Your task to perform on an android device: Search for "macbook air" on bestbuy.com, select the first entry, add it to the cart, then select checkout. Image 0: 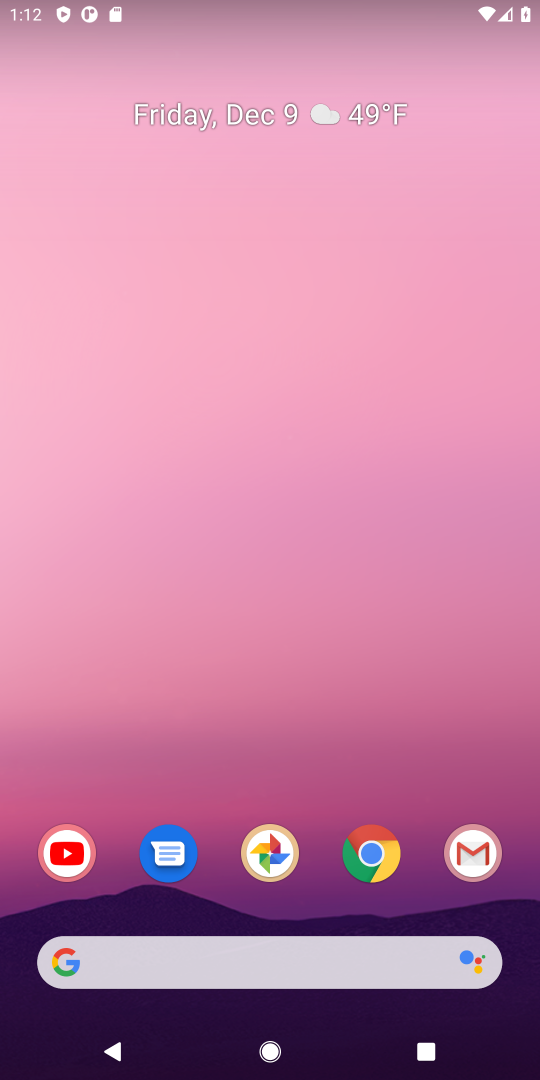
Step 0: click (293, 407)
Your task to perform on an android device: Search for "macbook air" on bestbuy.com, select the first entry, add it to the cart, then select checkout. Image 1: 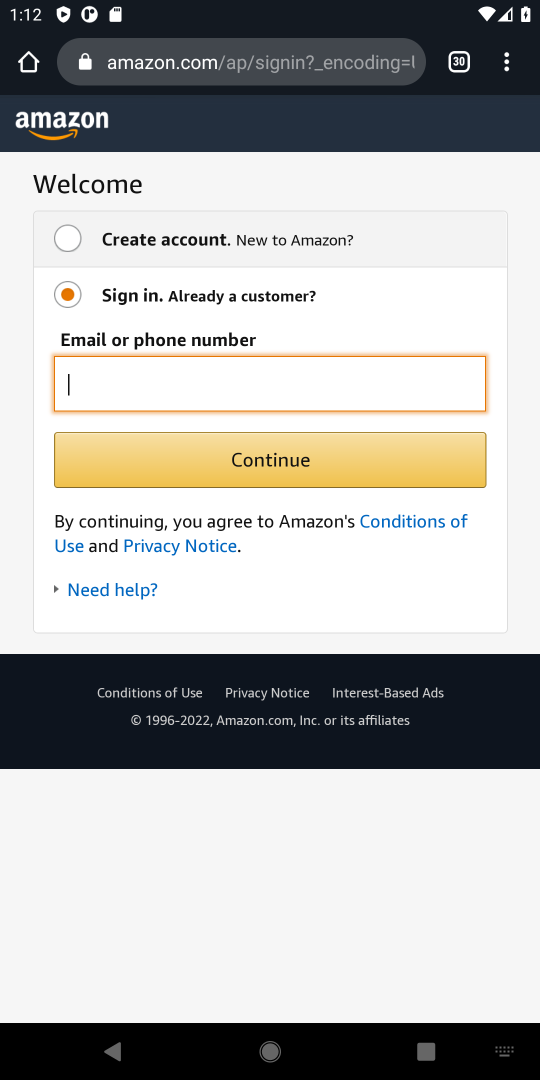
Step 1: press back button
Your task to perform on an android device: Search for "macbook air" on bestbuy.com, select the first entry, add it to the cart, then select checkout. Image 2: 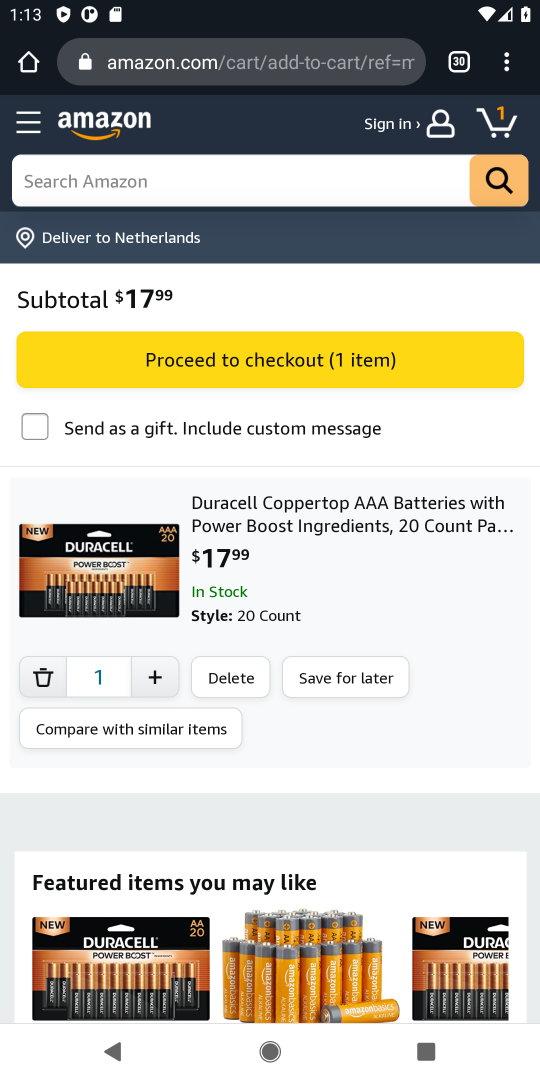
Step 2: press home button
Your task to perform on an android device: Search for "macbook air" on bestbuy.com, select the first entry, add it to the cart, then select checkout. Image 3: 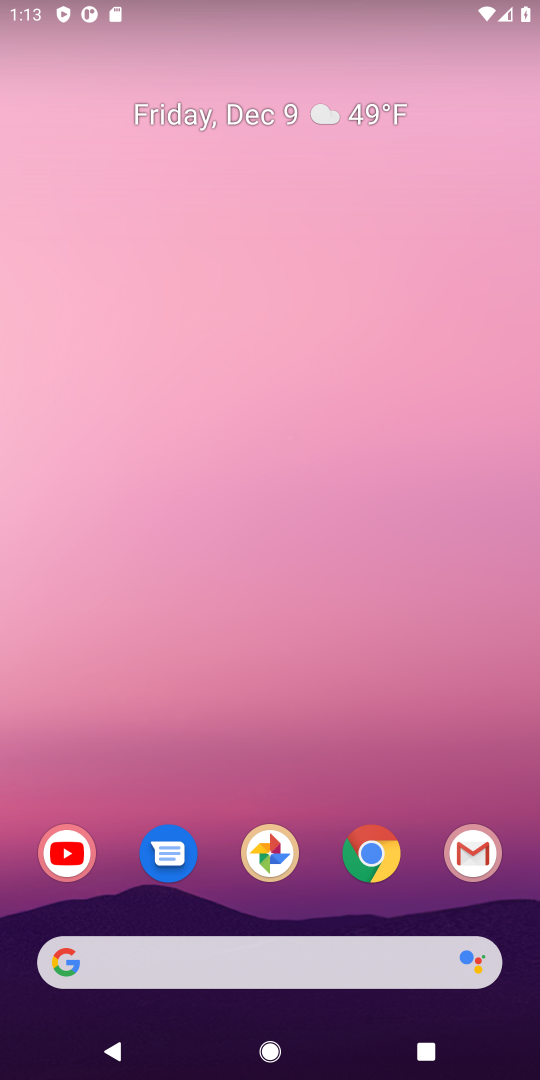
Step 3: drag from (181, 722) to (154, 361)
Your task to perform on an android device: Search for "macbook air" on bestbuy.com, select the first entry, add it to the cart, then select checkout. Image 4: 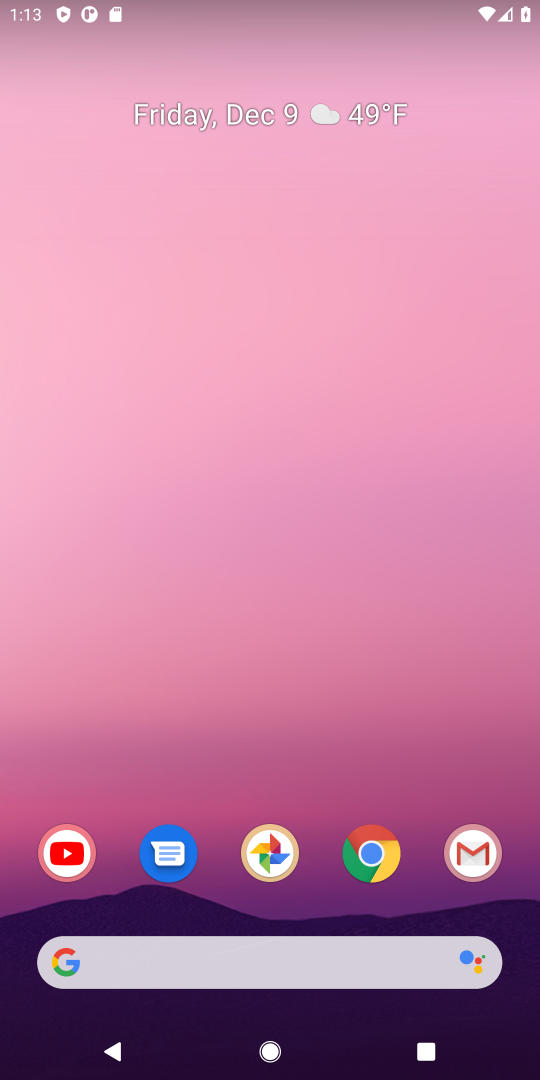
Step 4: drag from (226, 944) to (200, 488)
Your task to perform on an android device: Search for "macbook air" on bestbuy.com, select the first entry, add it to the cart, then select checkout. Image 5: 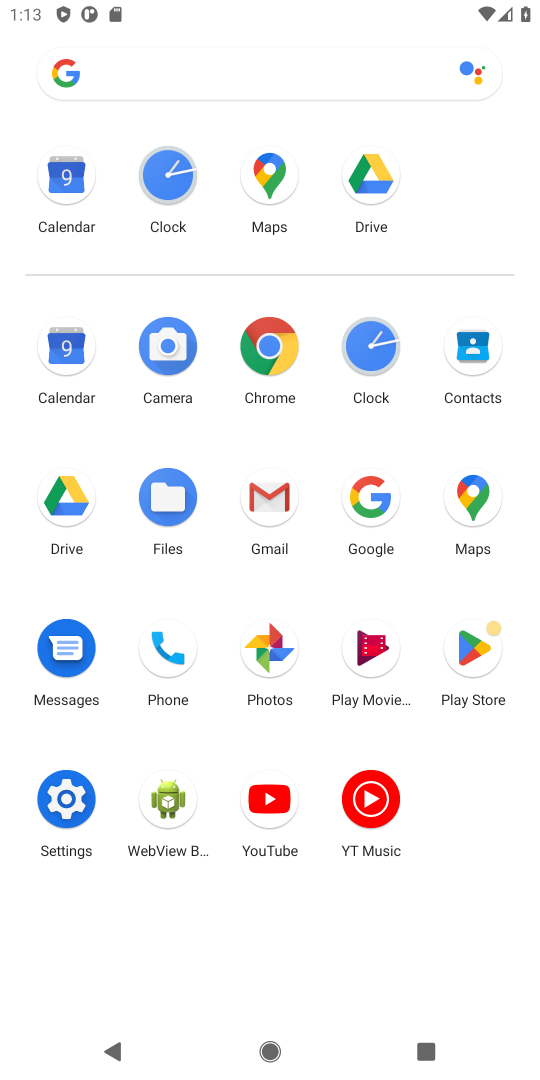
Step 5: click (370, 491)
Your task to perform on an android device: Search for "macbook air" on bestbuy.com, select the first entry, add it to the cart, then select checkout. Image 6: 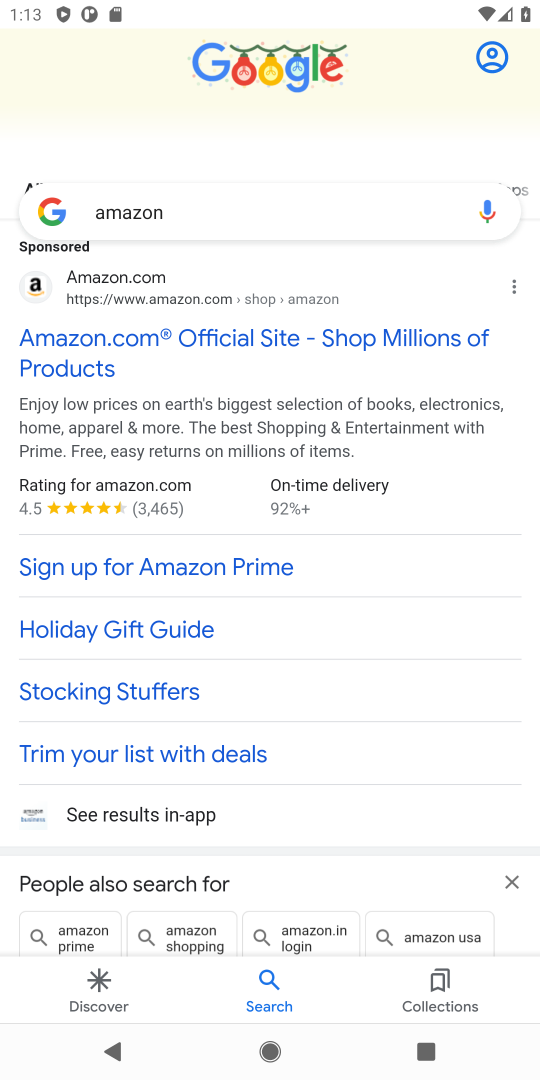
Step 6: click (144, 214)
Your task to perform on an android device: Search for "macbook air" on bestbuy.com, select the first entry, add it to the cart, then select checkout. Image 7: 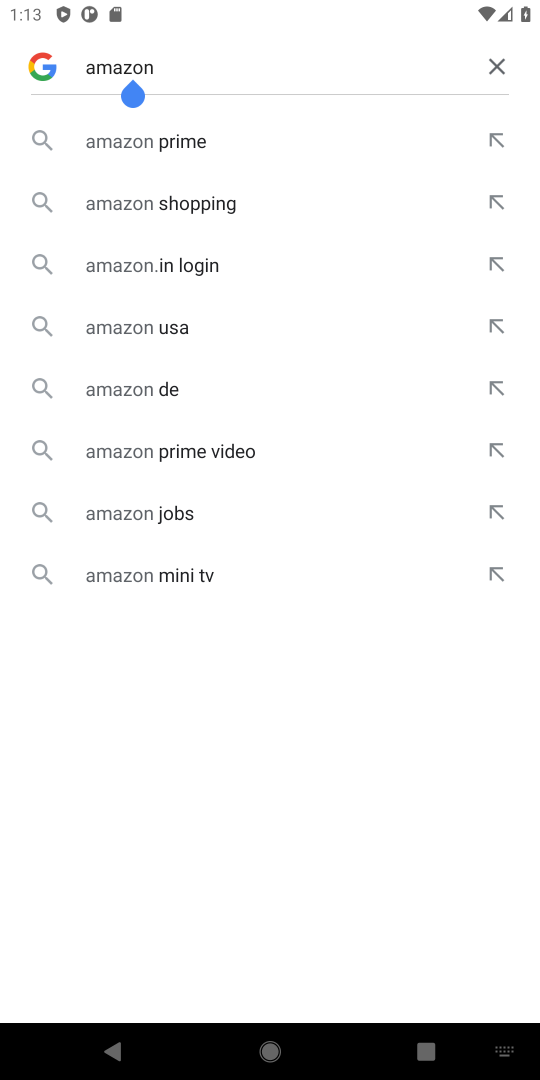
Step 7: click (486, 60)
Your task to perform on an android device: Search for "macbook air" on bestbuy.com, select the first entry, add it to the cart, then select checkout. Image 8: 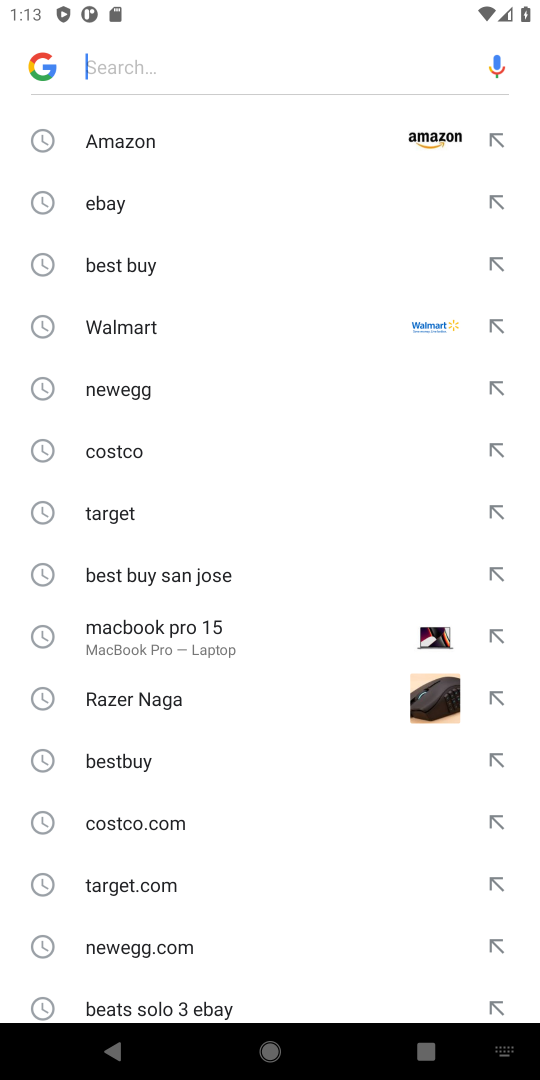
Step 8: click (130, 755)
Your task to perform on an android device: Search for "macbook air" on bestbuy.com, select the first entry, add it to the cart, then select checkout. Image 9: 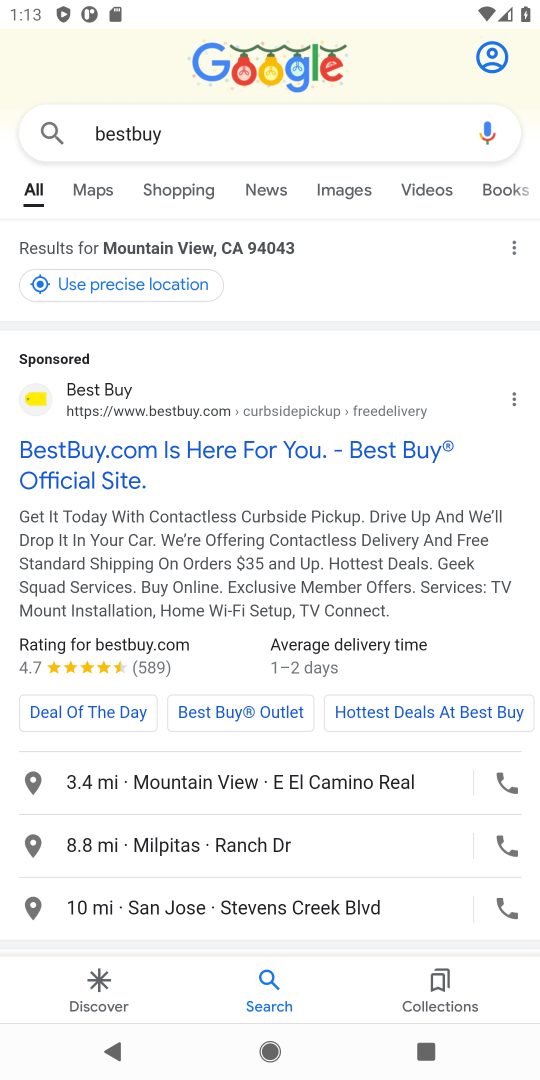
Step 9: click (104, 456)
Your task to perform on an android device: Search for "macbook air" on bestbuy.com, select the first entry, add it to the cart, then select checkout. Image 10: 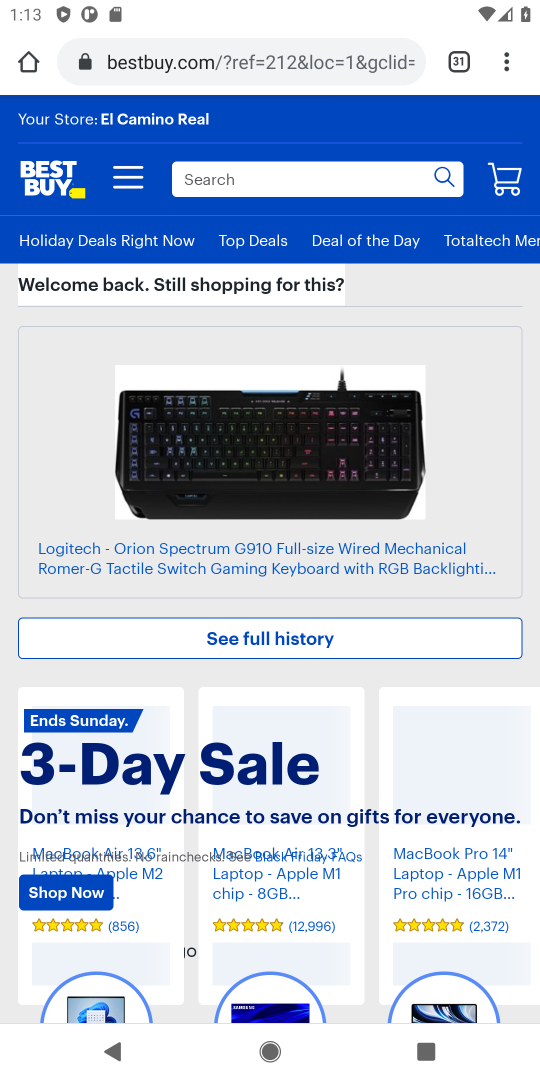
Step 10: click (216, 173)
Your task to perform on an android device: Search for "macbook air" on bestbuy.com, select the first entry, add it to the cart, then select checkout. Image 11: 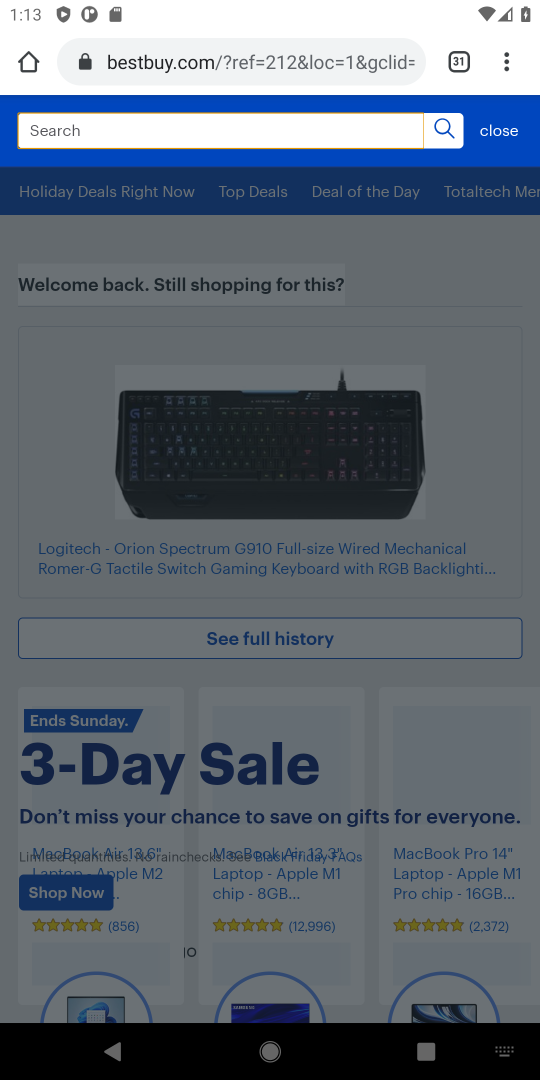
Step 11: type "macbook air"
Your task to perform on an android device: Search for "macbook air" on bestbuy.com, select the first entry, add it to the cart, then select checkout. Image 12: 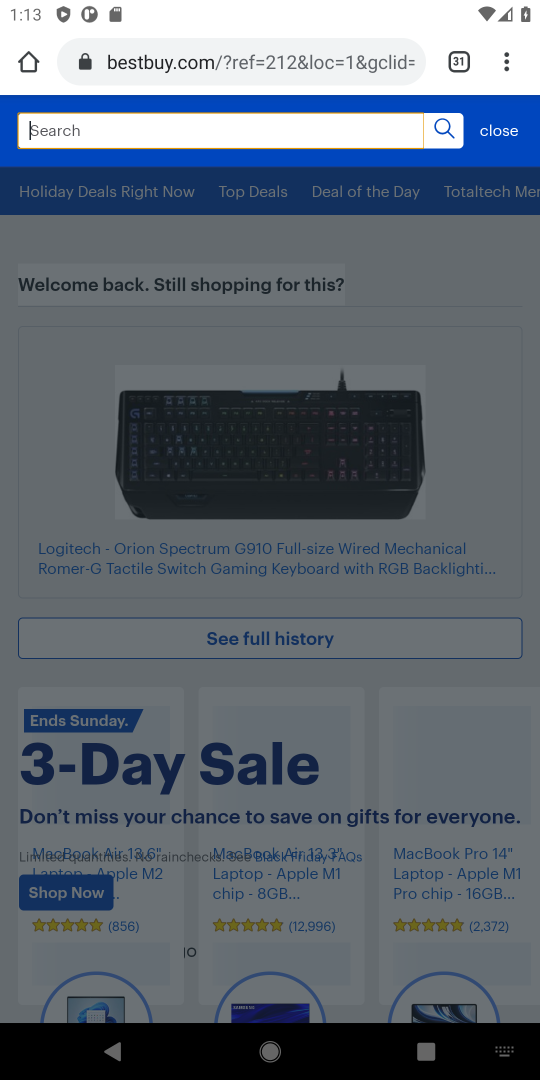
Step 12: click (441, 126)
Your task to perform on an android device: Search for "macbook air" on bestbuy.com, select the first entry, add it to the cart, then select checkout. Image 13: 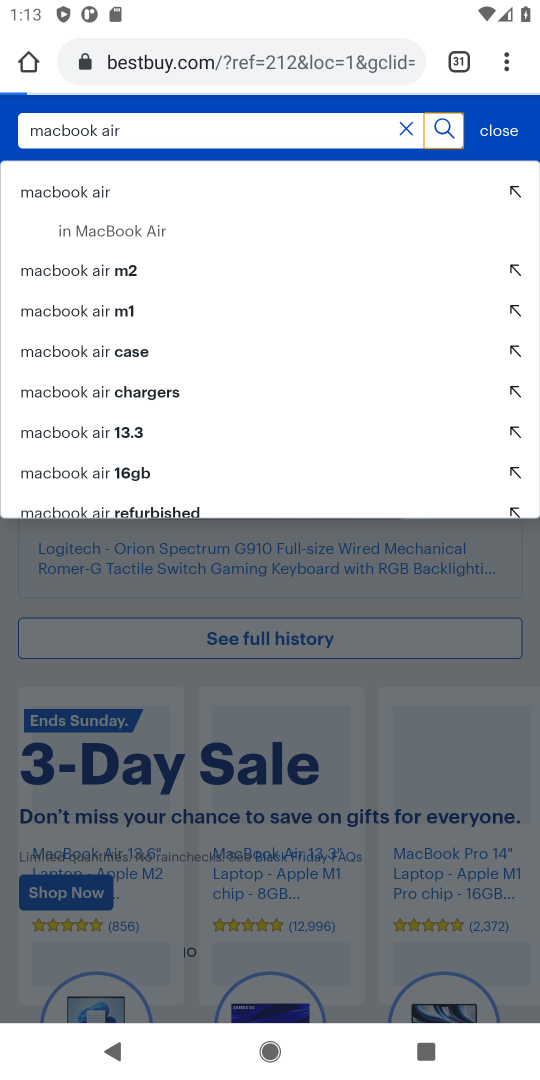
Step 13: click (63, 182)
Your task to perform on an android device: Search for "macbook air" on bestbuy.com, select the first entry, add it to the cart, then select checkout. Image 14: 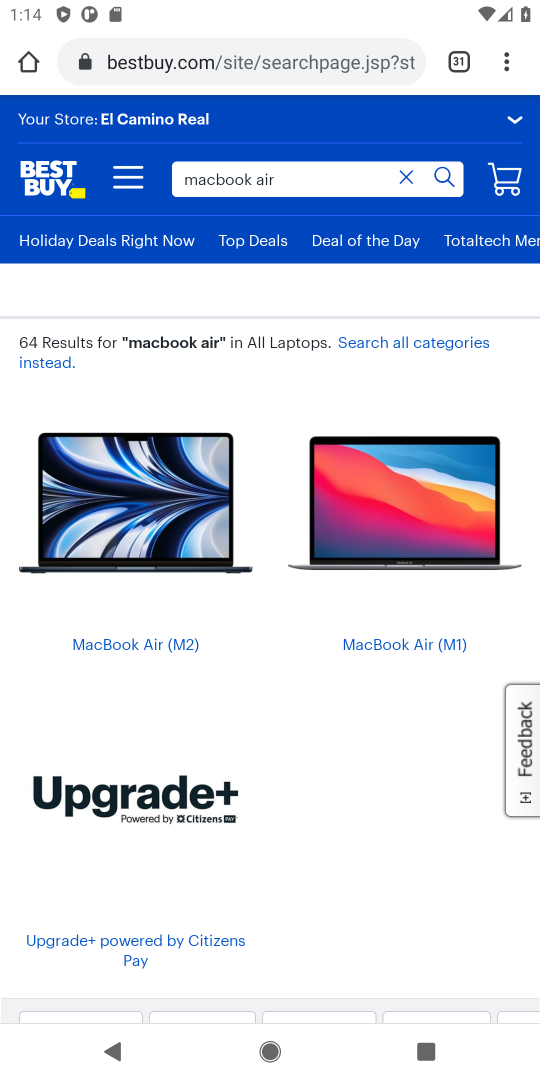
Step 14: click (142, 514)
Your task to perform on an android device: Search for "macbook air" on bestbuy.com, select the first entry, add it to the cart, then select checkout. Image 15: 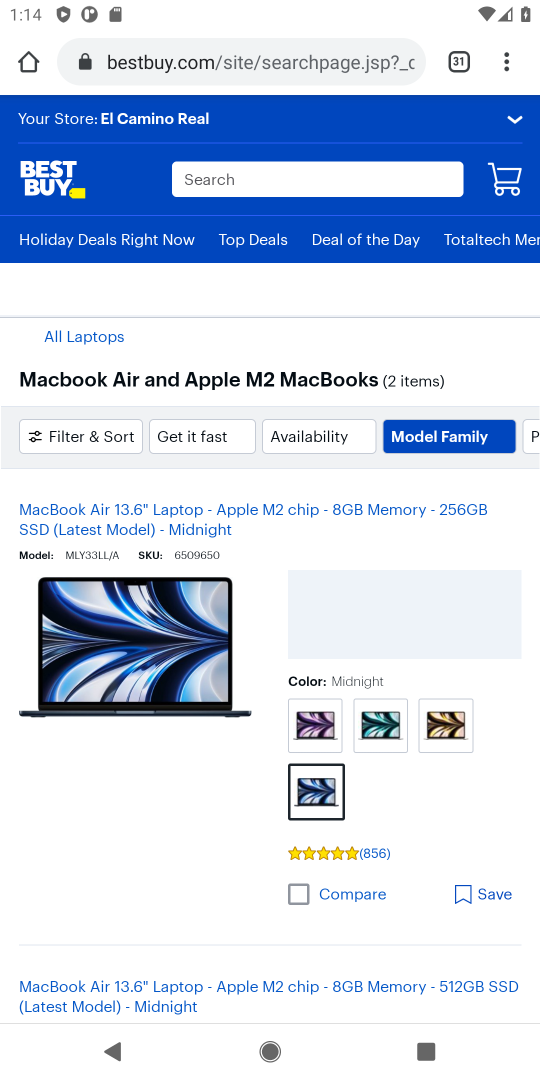
Step 15: drag from (232, 846) to (216, 425)
Your task to perform on an android device: Search for "macbook air" on bestbuy.com, select the first entry, add it to the cart, then select checkout. Image 16: 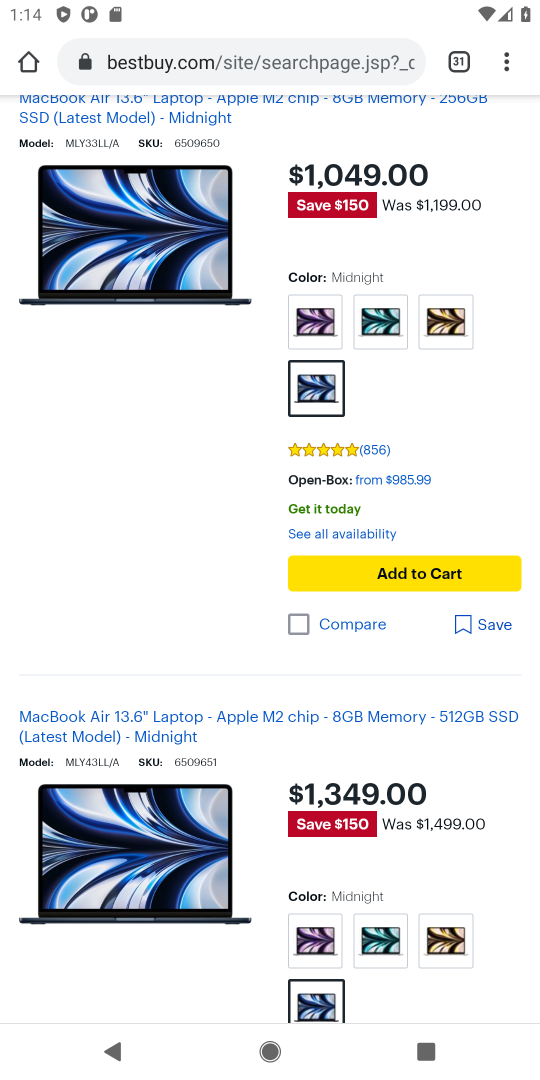
Step 16: click (406, 537)
Your task to perform on an android device: Search for "macbook air" on bestbuy.com, select the first entry, add it to the cart, then select checkout. Image 17: 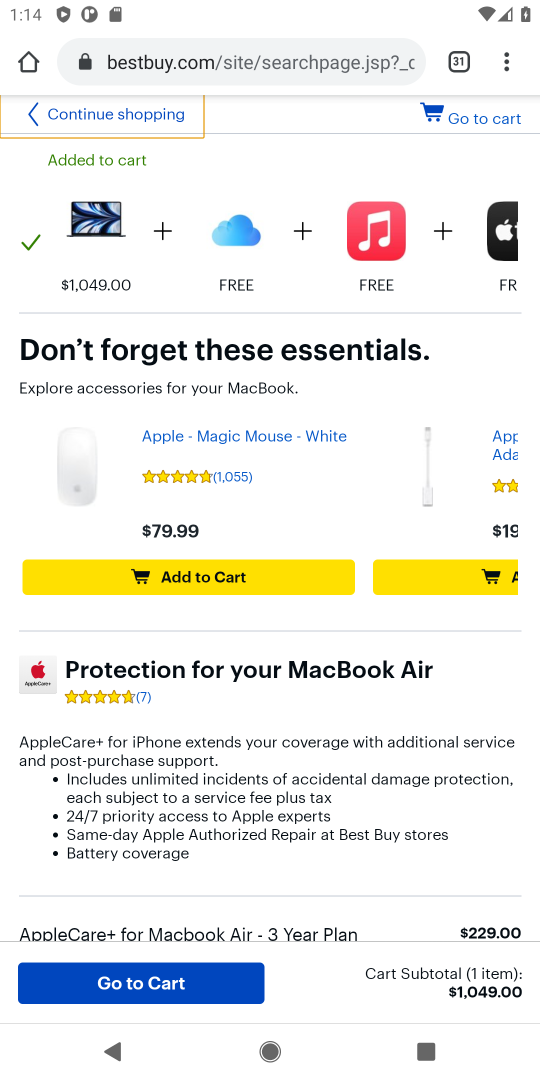
Step 17: click (146, 987)
Your task to perform on an android device: Search for "macbook air" on bestbuy.com, select the first entry, add it to the cart, then select checkout. Image 18: 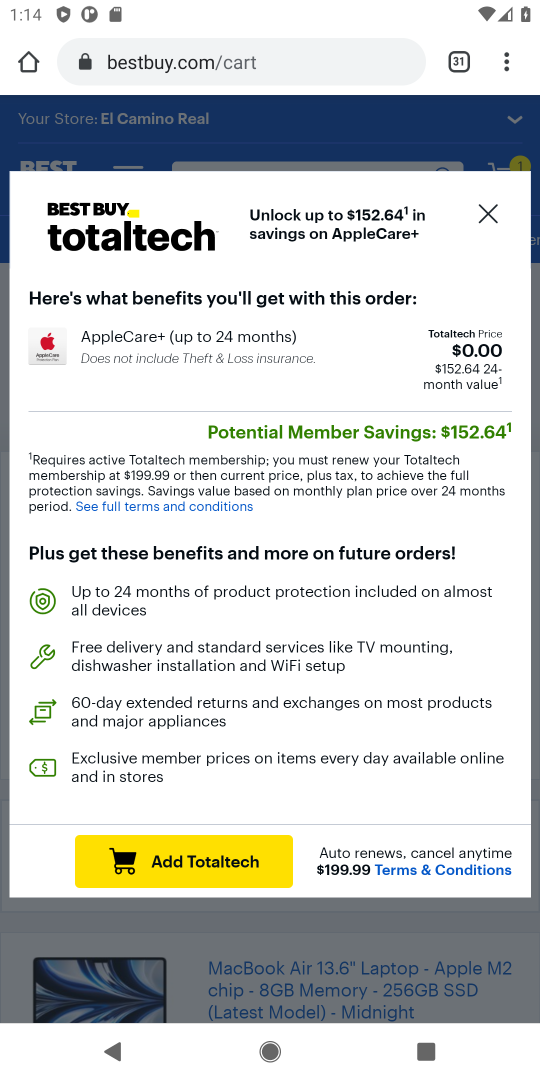
Step 18: click (308, 734)
Your task to perform on an android device: Search for "macbook air" on bestbuy.com, select the first entry, add it to the cart, then select checkout. Image 19: 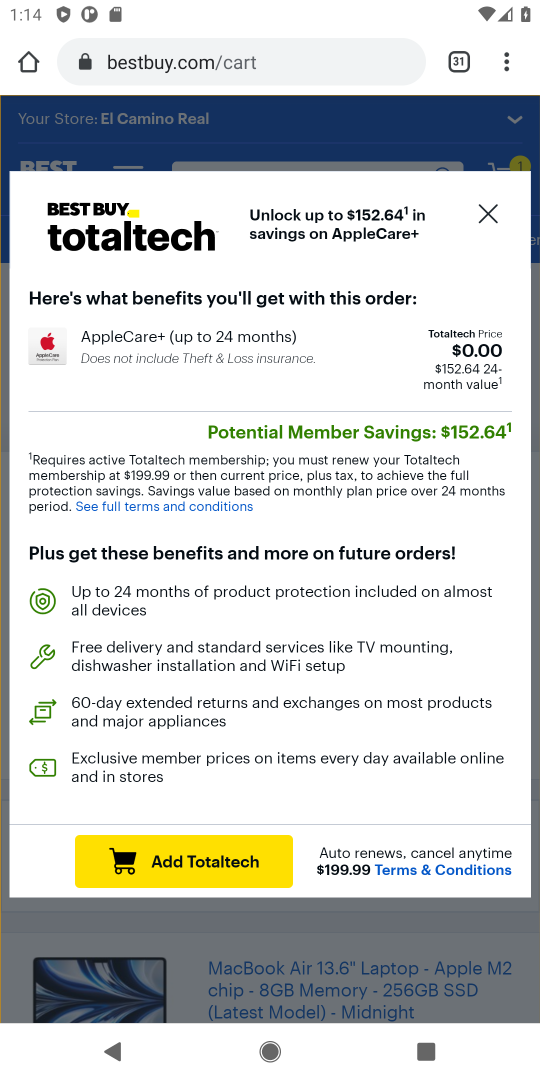
Step 19: click (481, 215)
Your task to perform on an android device: Search for "macbook air" on bestbuy.com, select the first entry, add it to the cart, then select checkout. Image 20: 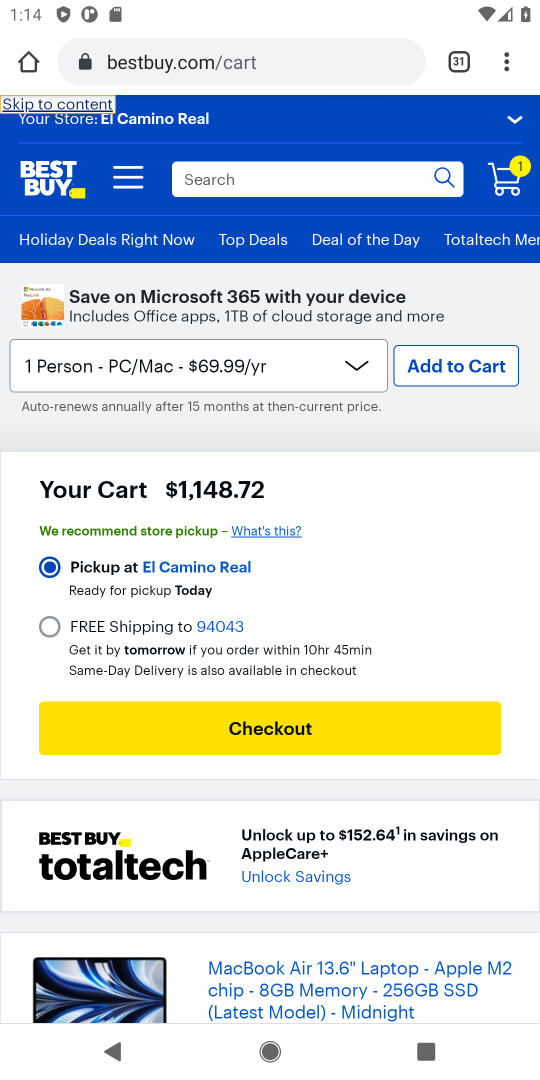
Step 20: click (203, 749)
Your task to perform on an android device: Search for "macbook air" on bestbuy.com, select the first entry, add it to the cart, then select checkout. Image 21: 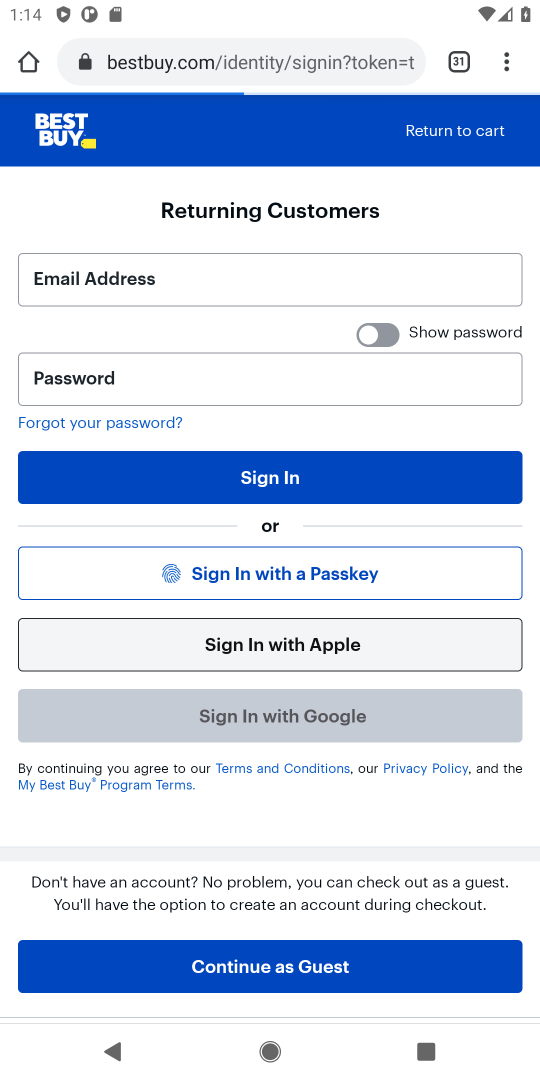
Step 21: task complete